Your task to perform on an android device: Toggle the flashlight Image 0: 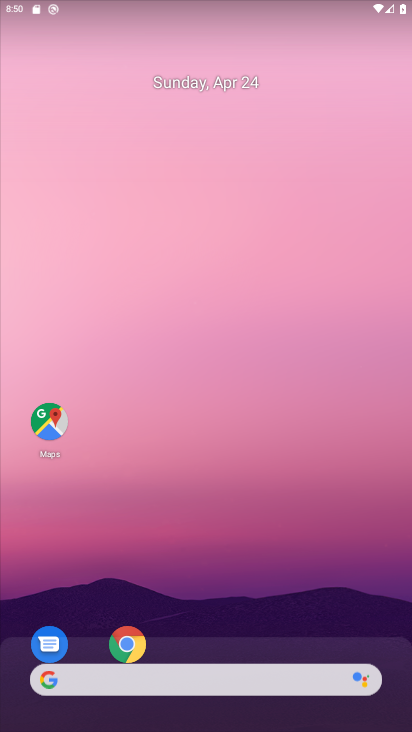
Step 0: drag from (203, 671) to (205, 5)
Your task to perform on an android device: Toggle the flashlight Image 1: 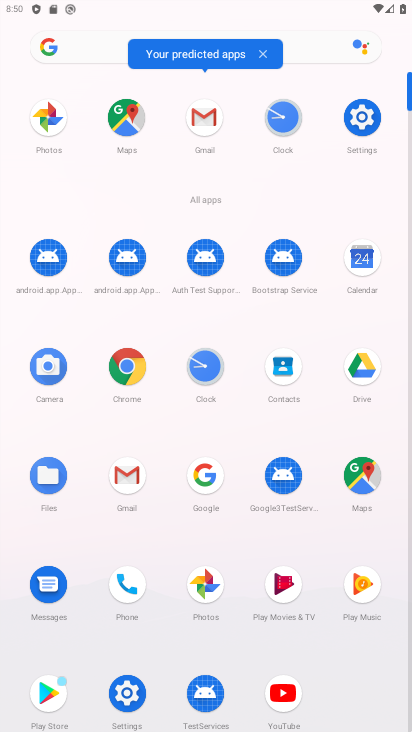
Step 1: click (363, 118)
Your task to perform on an android device: Toggle the flashlight Image 2: 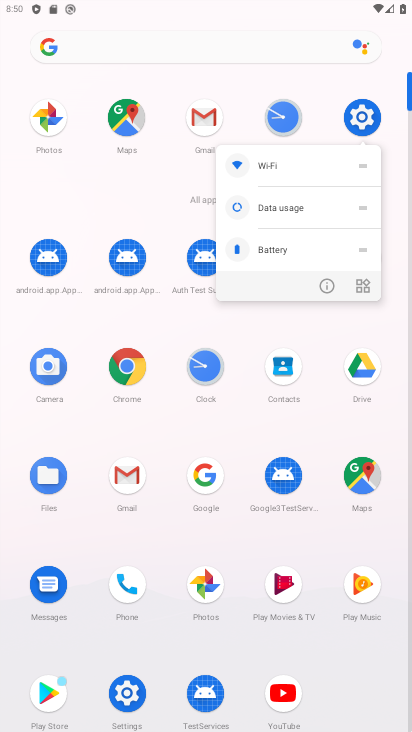
Step 2: click (363, 119)
Your task to perform on an android device: Toggle the flashlight Image 3: 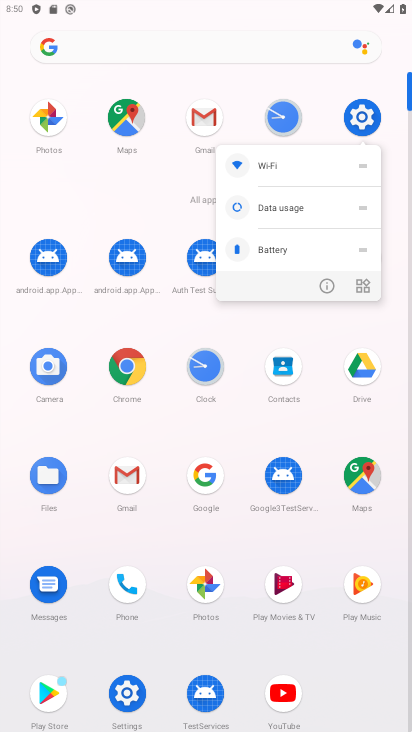
Step 3: click (368, 109)
Your task to perform on an android device: Toggle the flashlight Image 4: 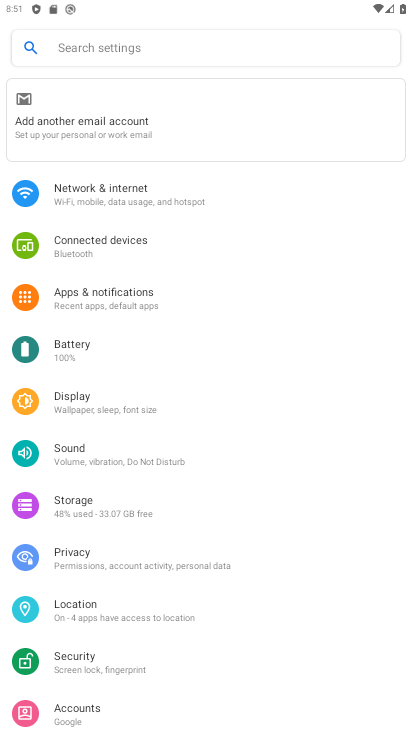
Step 4: task complete